Your task to perform on an android device: Go to ESPN.com Image 0: 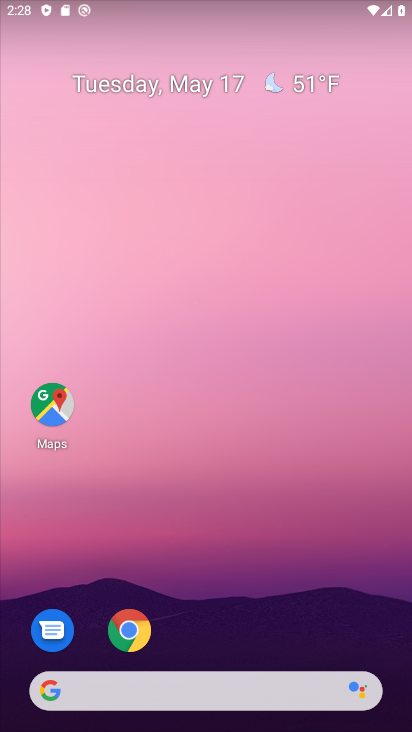
Step 0: click (121, 624)
Your task to perform on an android device: Go to ESPN.com Image 1: 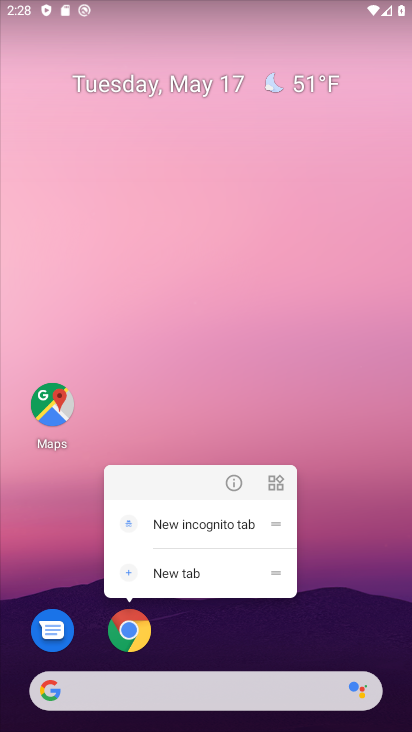
Step 1: click (126, 628)
Your task to perform on an android device: Go to ESPN.com Image 2: 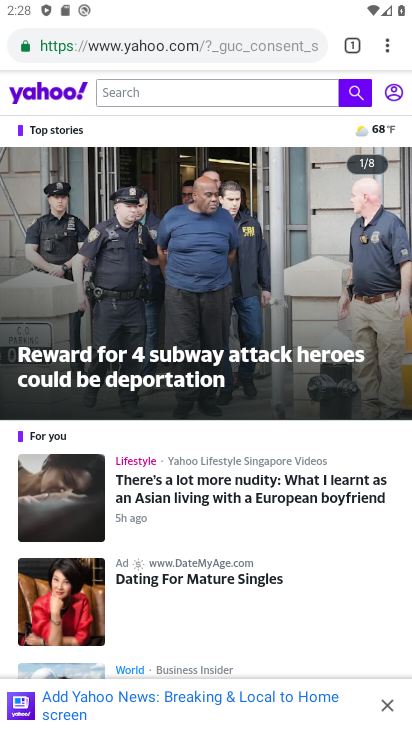
Step 2: press back button
Your task to perform on an android device: Go to ESPN.com Image 3: 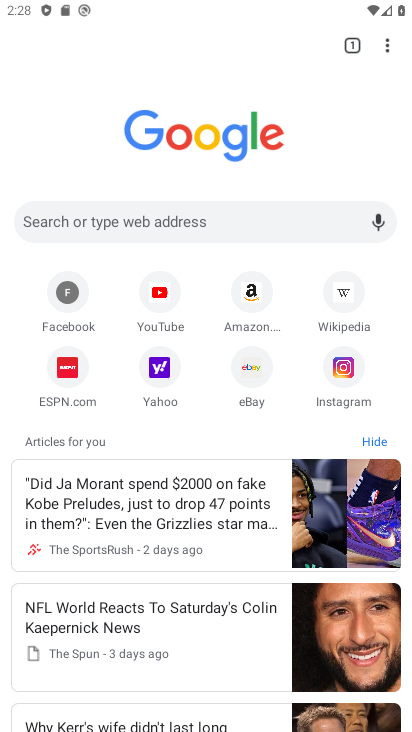
Step 3: click (60, 377)
Your task to perform on an android device: Go to ESPN.com Image 4: 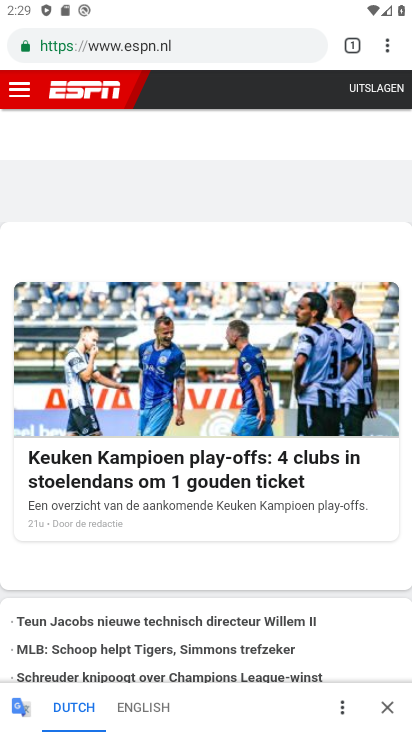
Step 4: task complete